Your task to perform on an android device: Open calendar and show me the first week of next month Image 0: 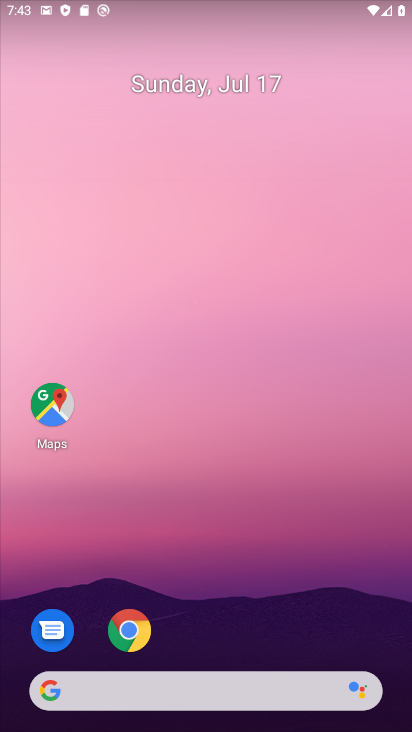
Step 0: press home button
Your task to perform on an android device: Open calendar and show me the first week of next month Image 1: 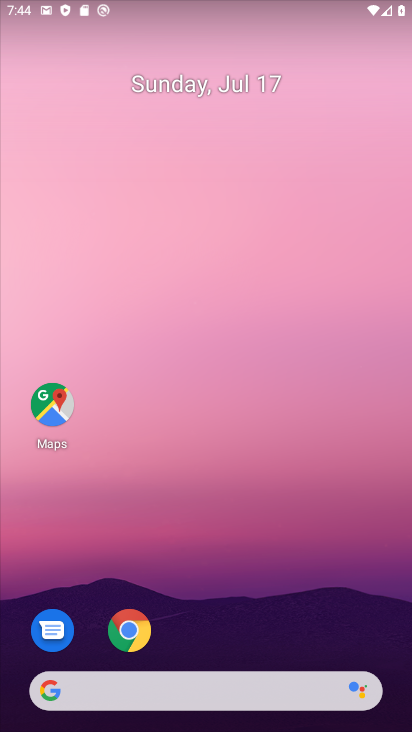
Step 1: drag from (234, 604) to (240, 259)
Your task to perform on an android device: Open calendar and show me the first week of next month Image 2: 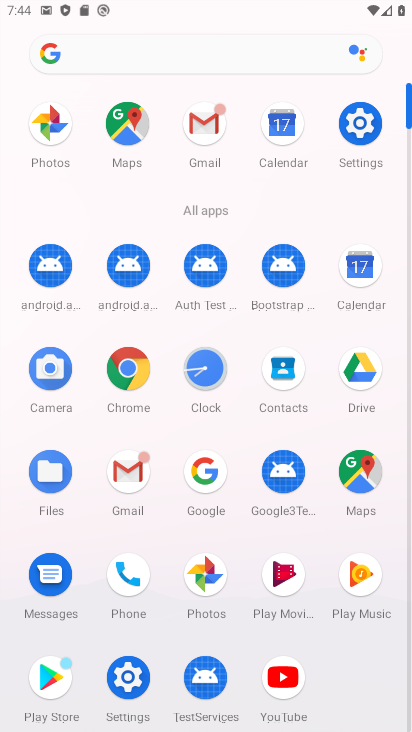
Step 2: click (364, 272)
Your task to perform on an android device: Open calendar and show me the first week of next month Image 3: 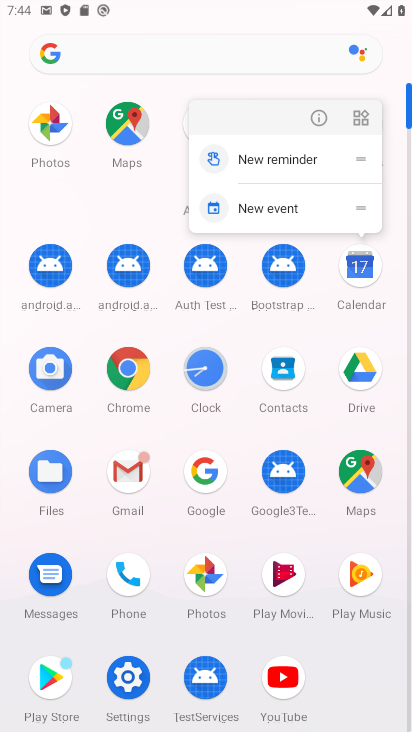
Step 3: click (349, 269)
Your task to perform on an android device: Open calendar and show me the first week of next month Image 4: 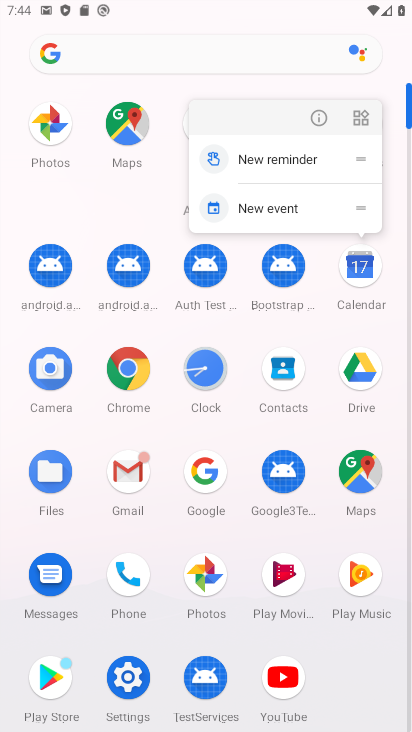
Step 4: click (360, 272)
Your task to perform on an android device: Open calendar and show me the first week of next month Image 5: 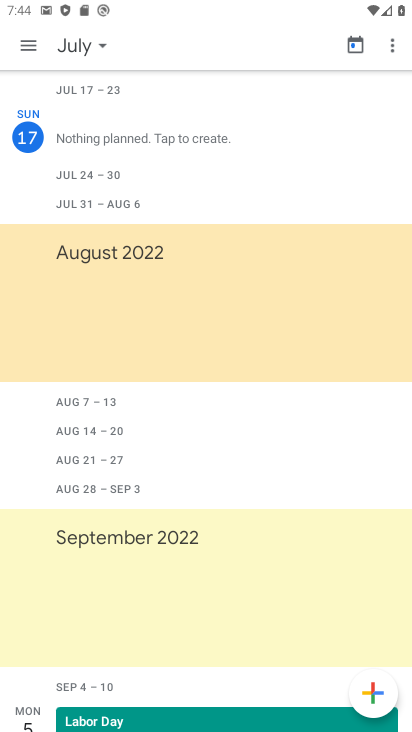
Step 5: click (122, 564)
Your task to perform on an android device: Open calendar and show me the first week of next month Image 6: 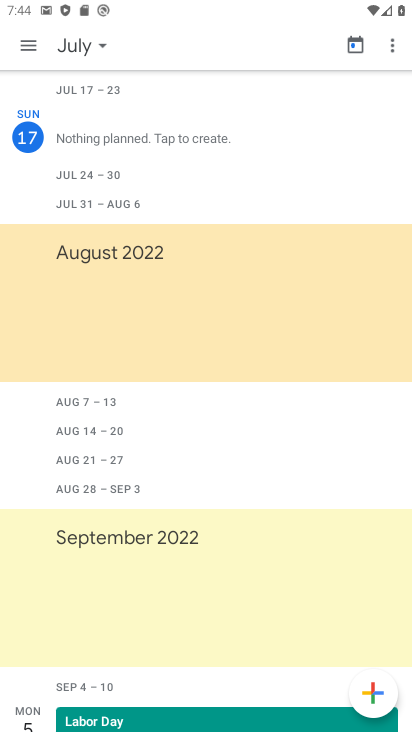
Step 6: click (137, 270)
Your task to perform on an android device: Open calendar and show me the first week of next month Image 7: 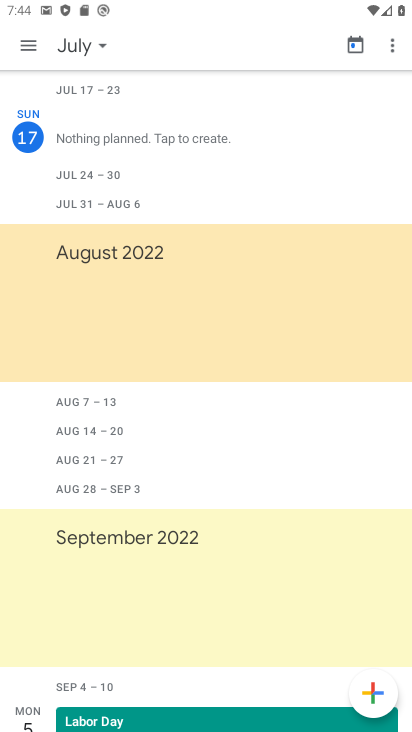
Step 7: click (57, 278)
Your task to perform on an android device: Open calendar and show me the first week of next month Image 8: 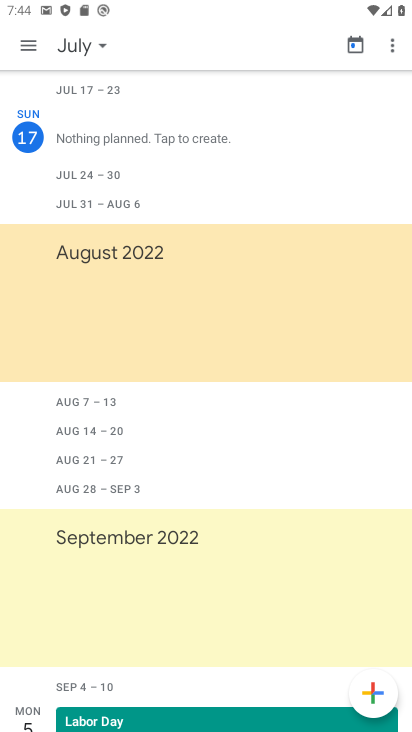
Step 8: click (83, 257)
Your task to perform on an android device: Open calendar and show me the first week of next month Image 9: 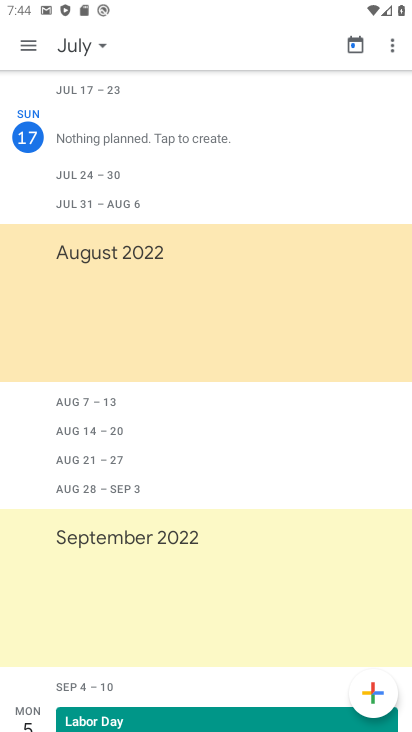
Step 9: task complete